Your task to perform on an android device: show emergency info Image 0: 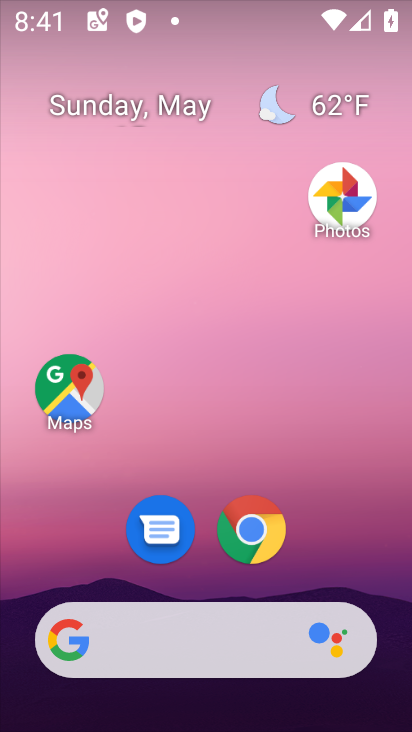
Step 0: drag from (350, 527) to (238, 92)
Your task to perform on an android device: show emergency info Image 1: 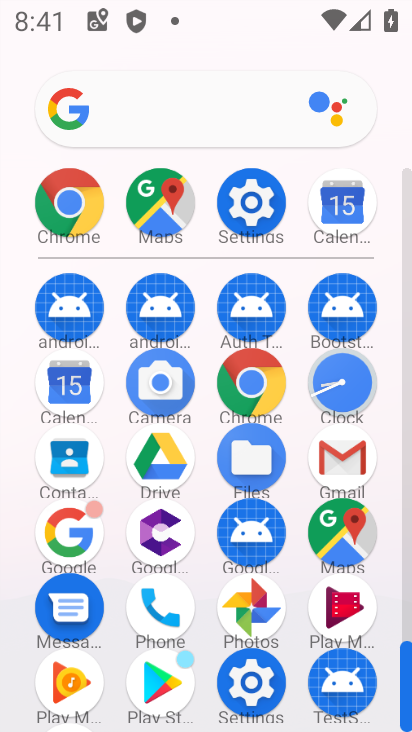
Step 1: click (238, 186)
Your task to perform on an android device: show emergency info Image 2: 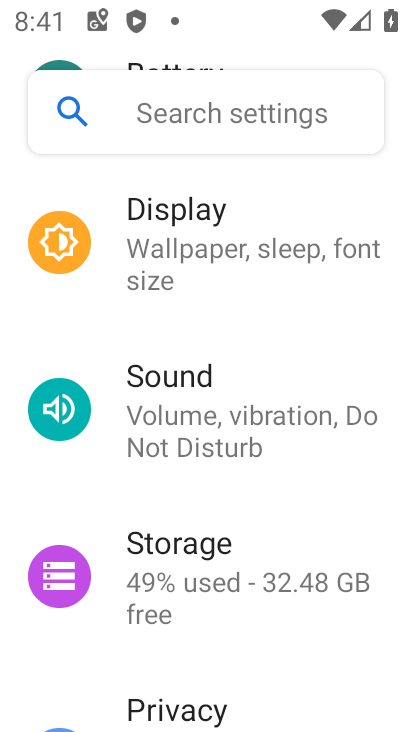
Step 2: drag from (275, 599) to (326, 214)
Your task to perform on an android device: show emergency info Image 3: 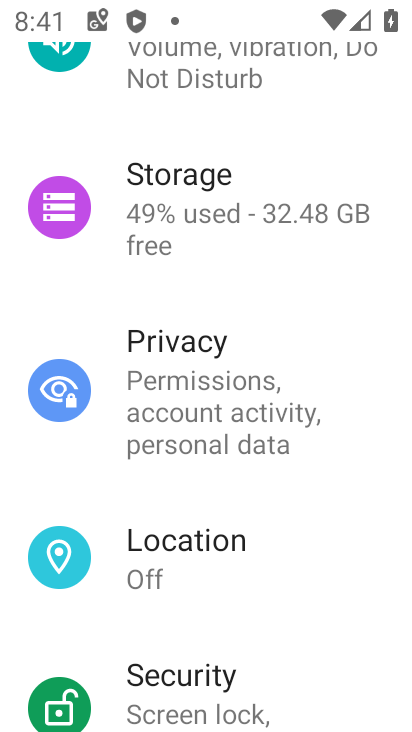
Step 3: drag from (279, 574) to (315, 192)
Your task to perform on an android device: show emergency info Image 4: 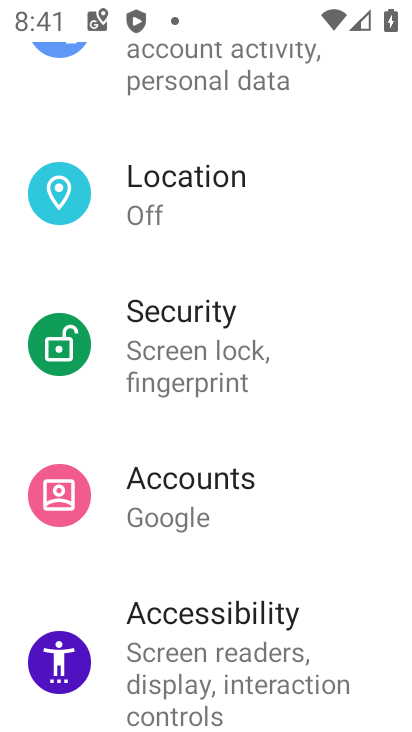
Step 4: drag from (329, 560) to (333, 264)
Your task to perform on an android device: show emergency info Image 5: 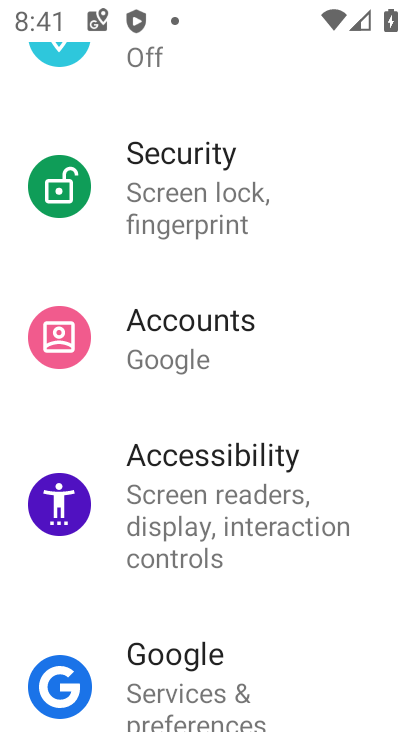
Step 5: drag from (278, 624) to (287, 180)
Your task to perform on an android device: show emergency info Image 6: 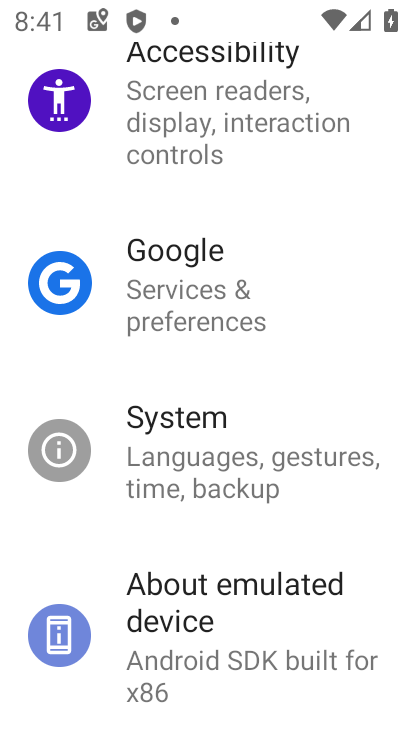
Step 6: drag from (311, 589) to (333, 202)
Your task to perform on an android device: show emergency info Image 7: 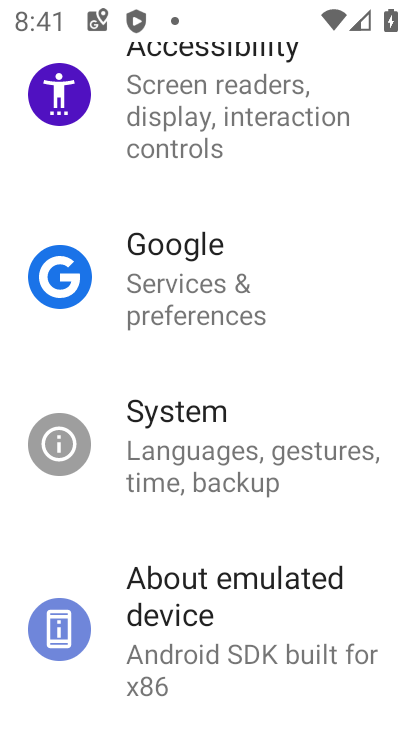
Step 7: click (267, 624)
Your task to perform on an android device: show emergency info Image 8: 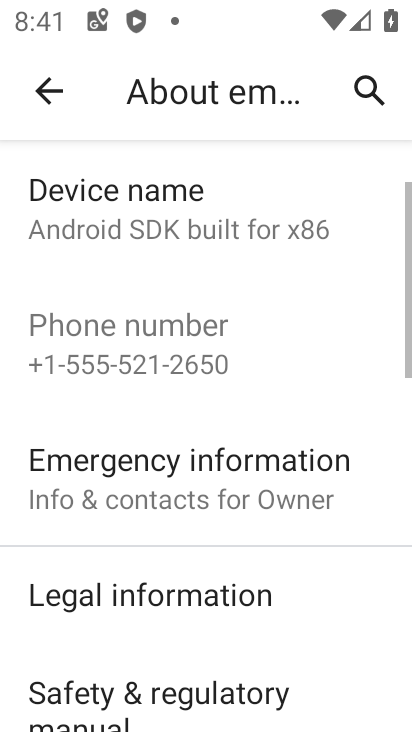
Step 8: click (224, 456)
Your task to perform on an android device: show emergency info Image 9: 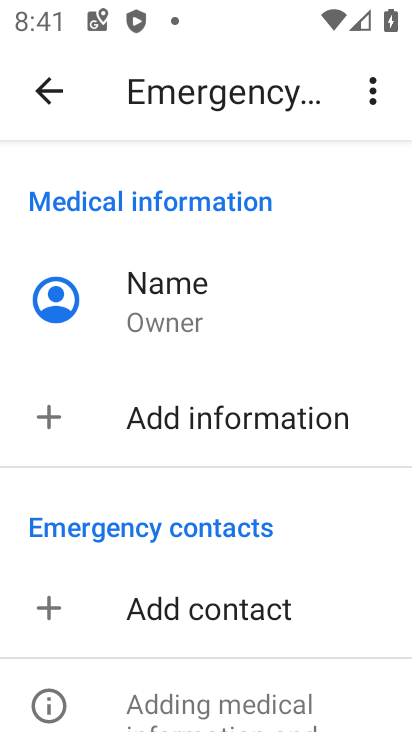
Step 9: task complete